Your task to perform on an android device: Go to privacy settings Image 0: 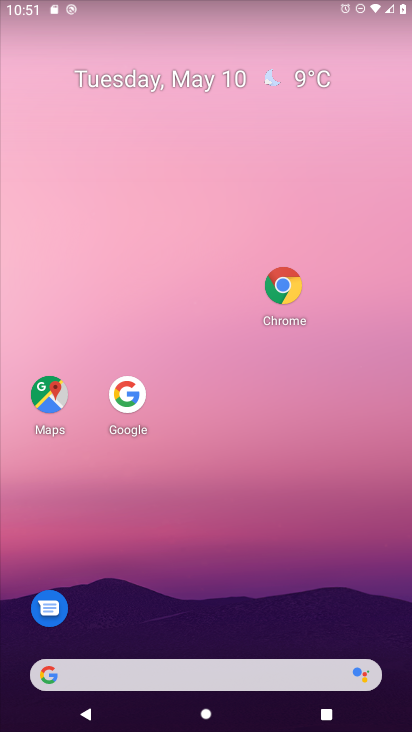
Step 0: drag from (168, 663) to (239, 171)
Your task to perform on an android device: Go to privacy settings Image 1: 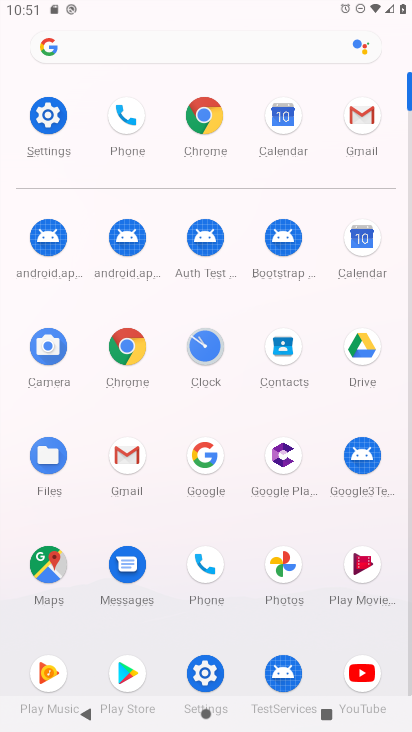
Step 1: click (50, 110)
Your task to perform on an android device: Go to privacy settings Image 2: 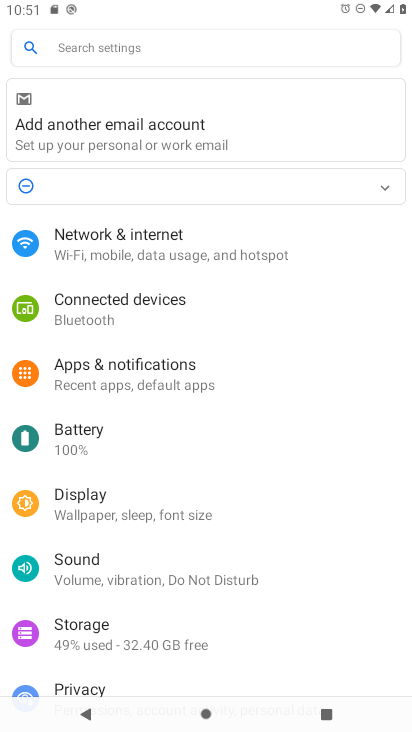
Step 2: drag from (179, 503) to (281, 264)
Your task to perform on an android device: Go to privacy settings Image 3: 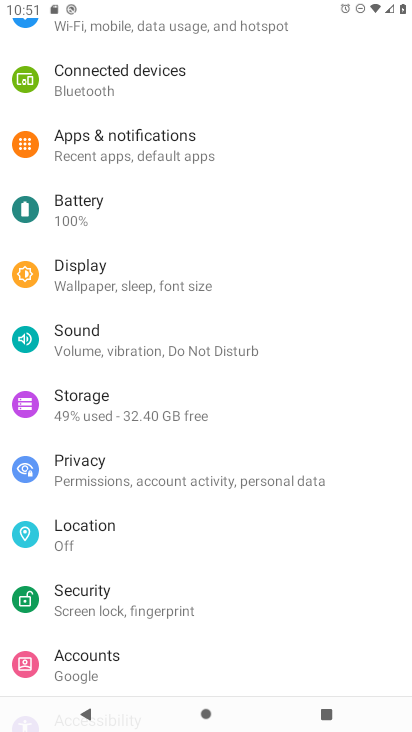
Step 3: click (97, 461)
Your task to perform on an android device: Go to privacy settings Image 4: 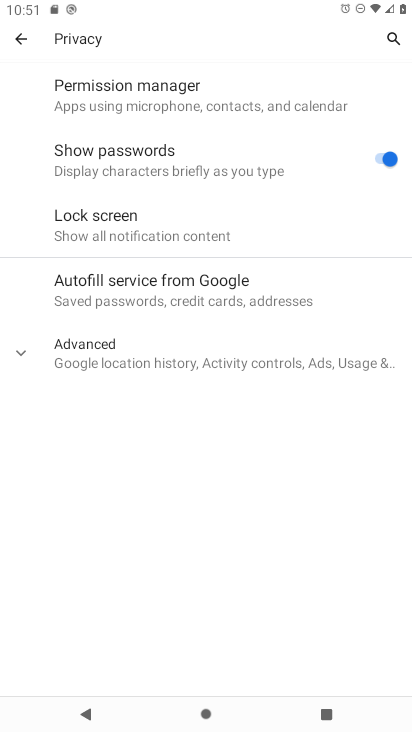
Step 4: task complete